Your task to perform on an android device: Open wifi settings Image 0: 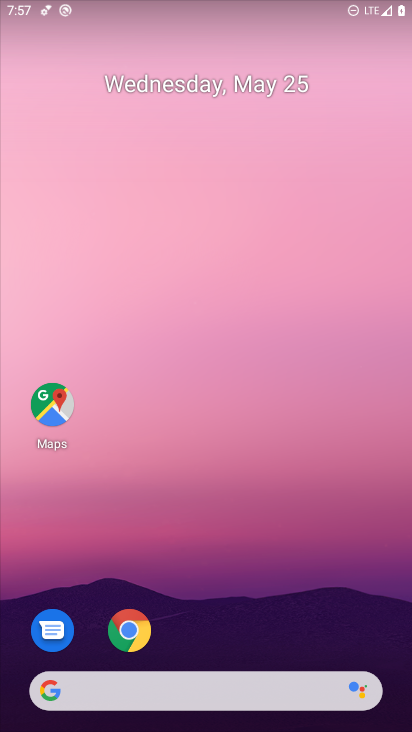
Step 0: drag from (199, 633) to (268, 259)
Your task to perform on an android device: Open wifi settings Image 1: 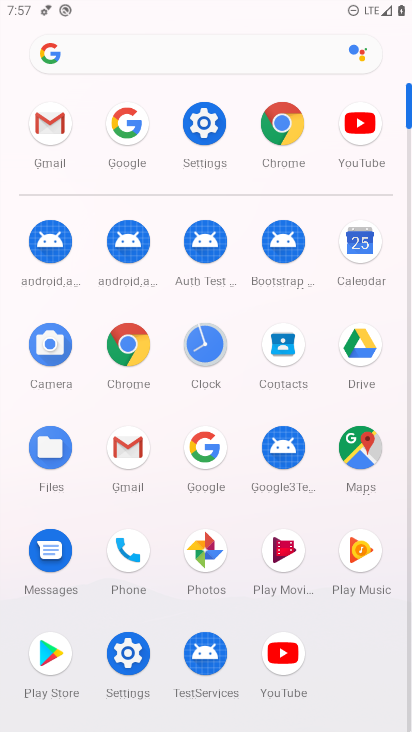
Step 1: click (197, 130)
Your task to perform on an android device: Open wifi settings Image 2: 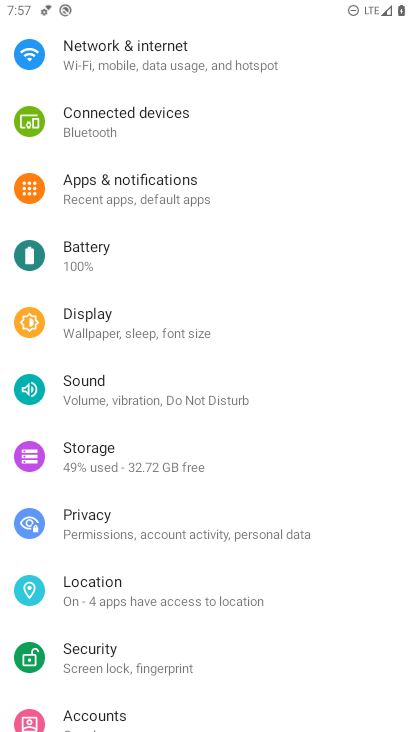
Step 2: click (172, 58)
Your task to perform on an android device: Open wifi settings Image 3: 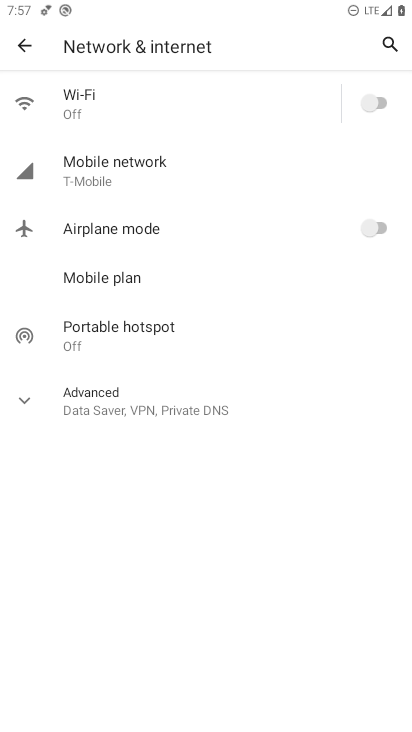
Step 3: click (107, 112)
Your task to perform on an android device: Open wifi settings Image 4: 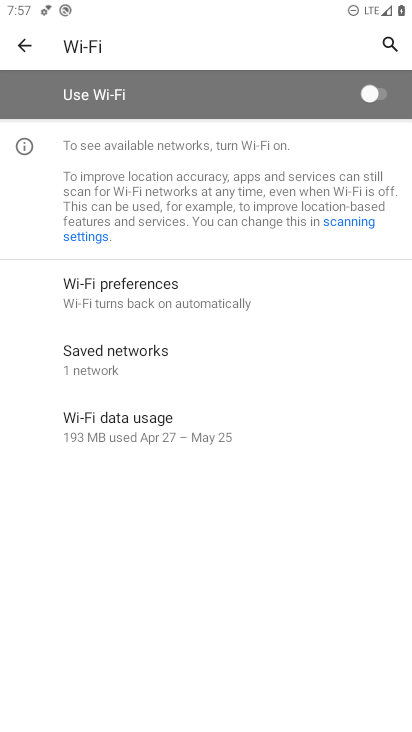
Step 4: click (378, 98)
Your task to perform on an android device: Open wifi settings Image 5: 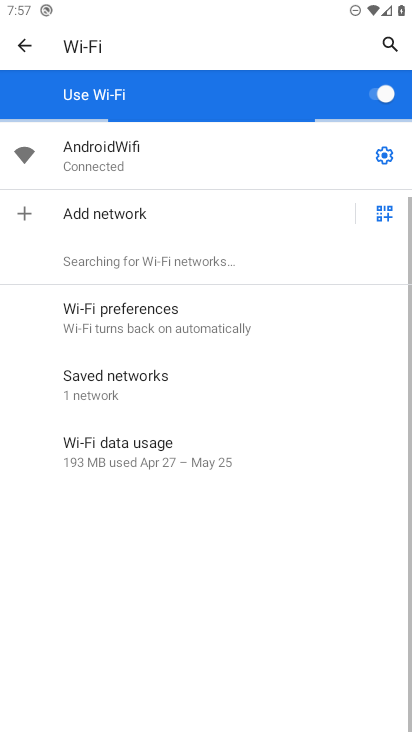
Step 5: click (392, 150)
Your task to perform on an android device: Open wifi settings Image 6: 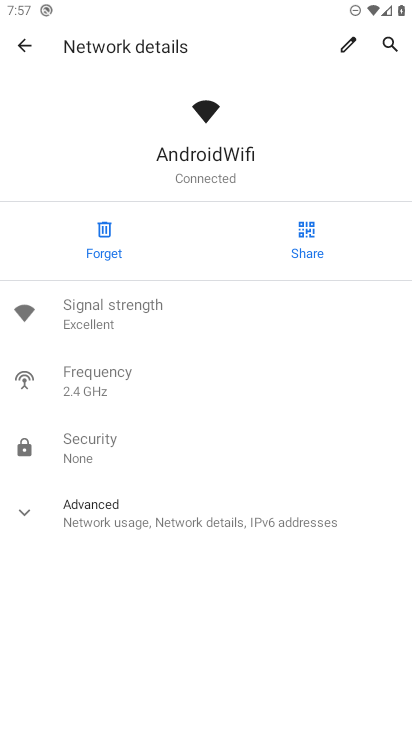
Step 6: click (213, 522)
Your task to perform on an android device: Open wifi settings Image 7: 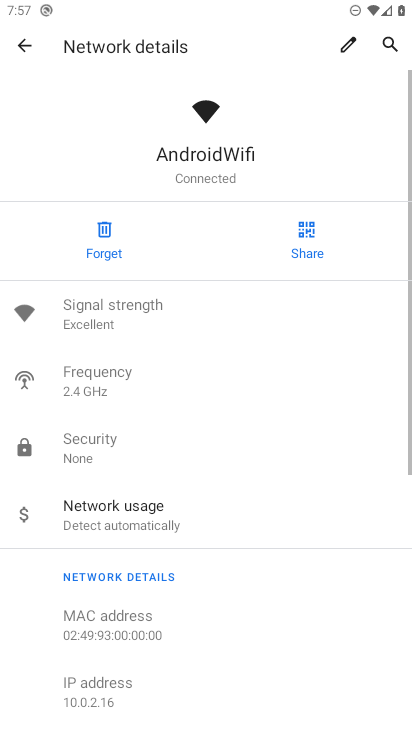
Step 7: task complete